Your task to perform on an android device: What's the weather going to be tomorrow? Image 0: 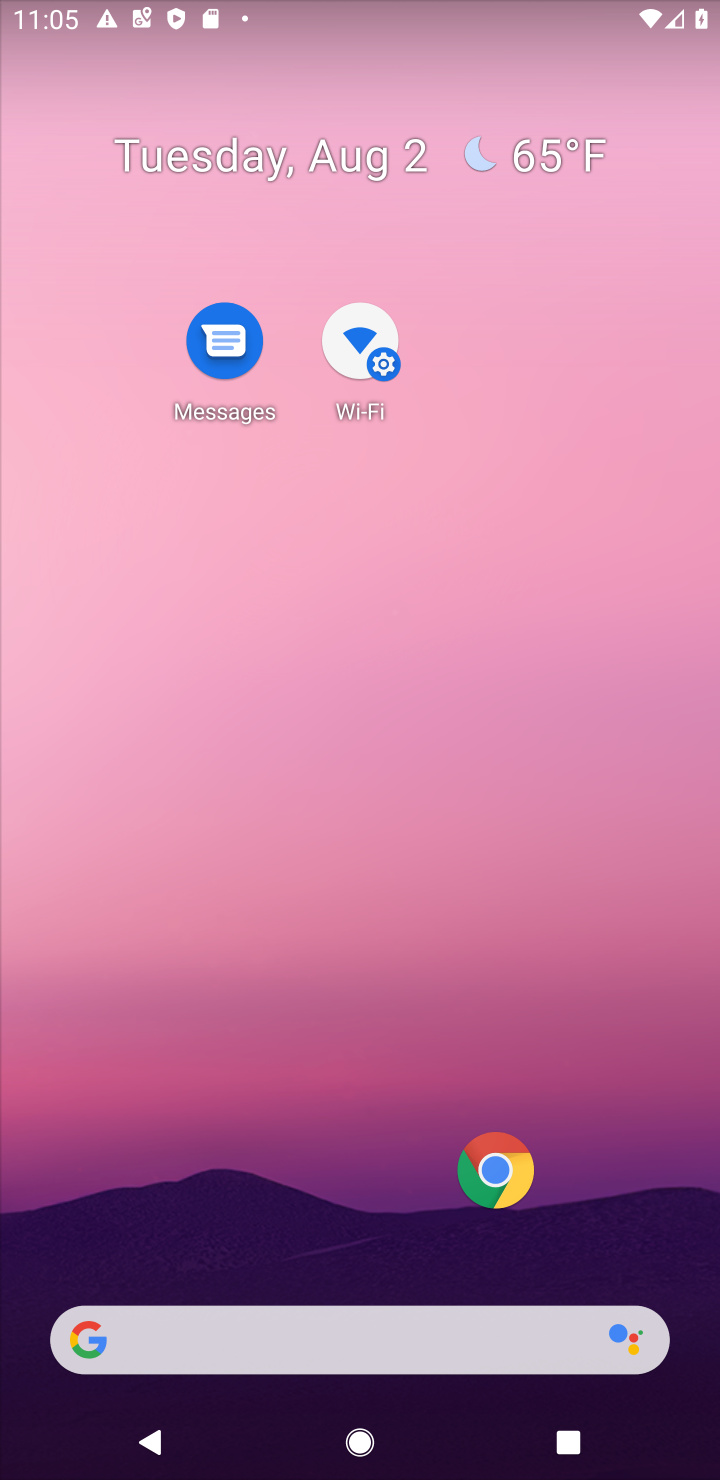
Step 0: drag from (355, 1078) to (391, 132)
Your task to perform on an android device: What's the weather going to be tomorrow? Image 1: 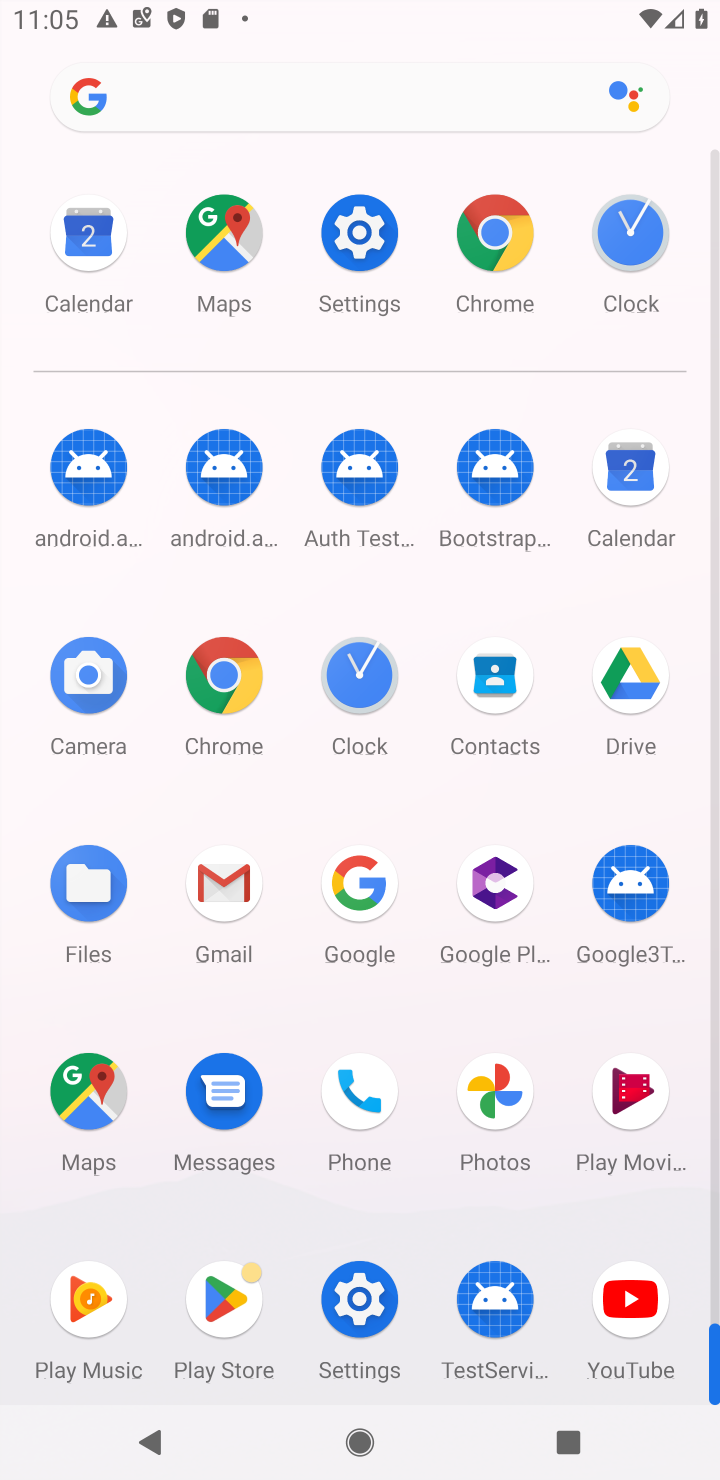
Step 1: click (612, 476)
Your task to perform on an android device: What's the weather going to be tomorrow? Image 2: 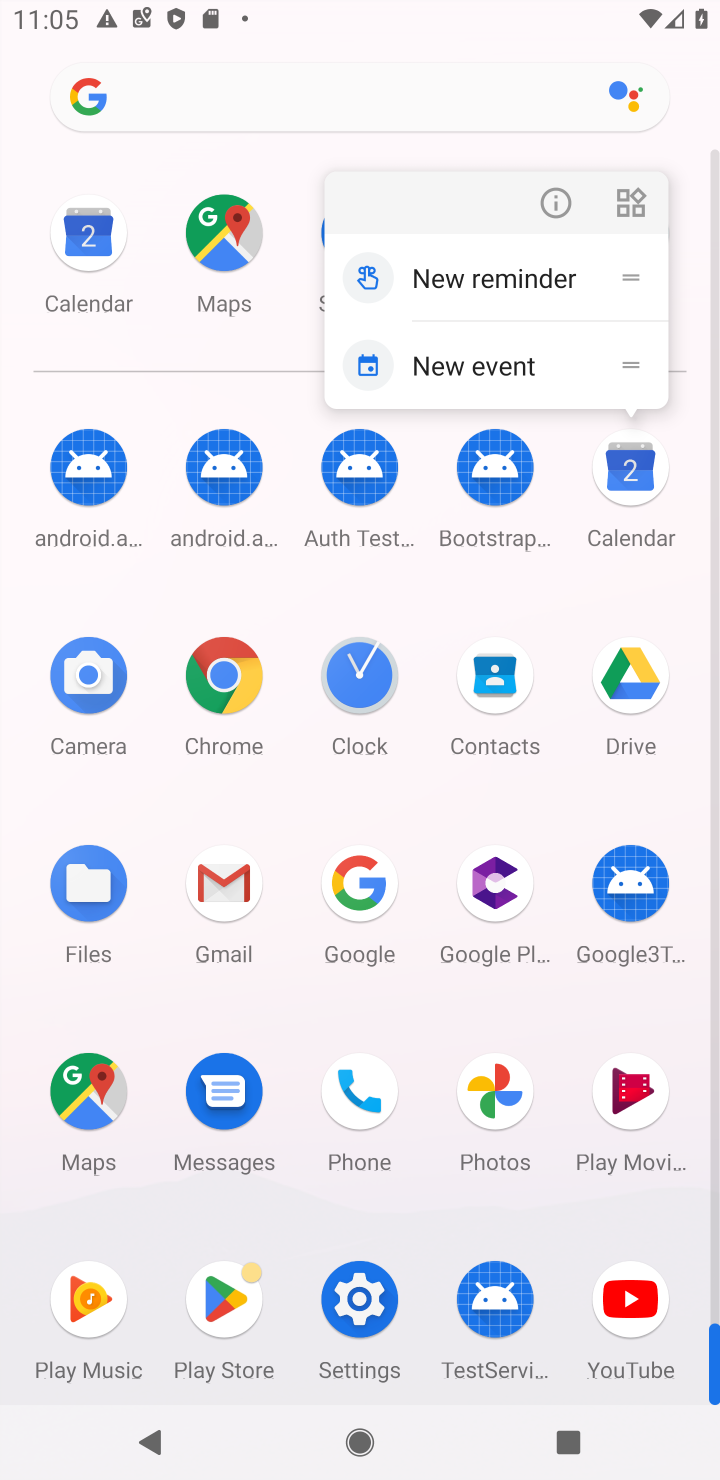
Step 2: click (551, 205)
Your task to perform on an android device: What's the weather going to be tomorrow? Image 3: 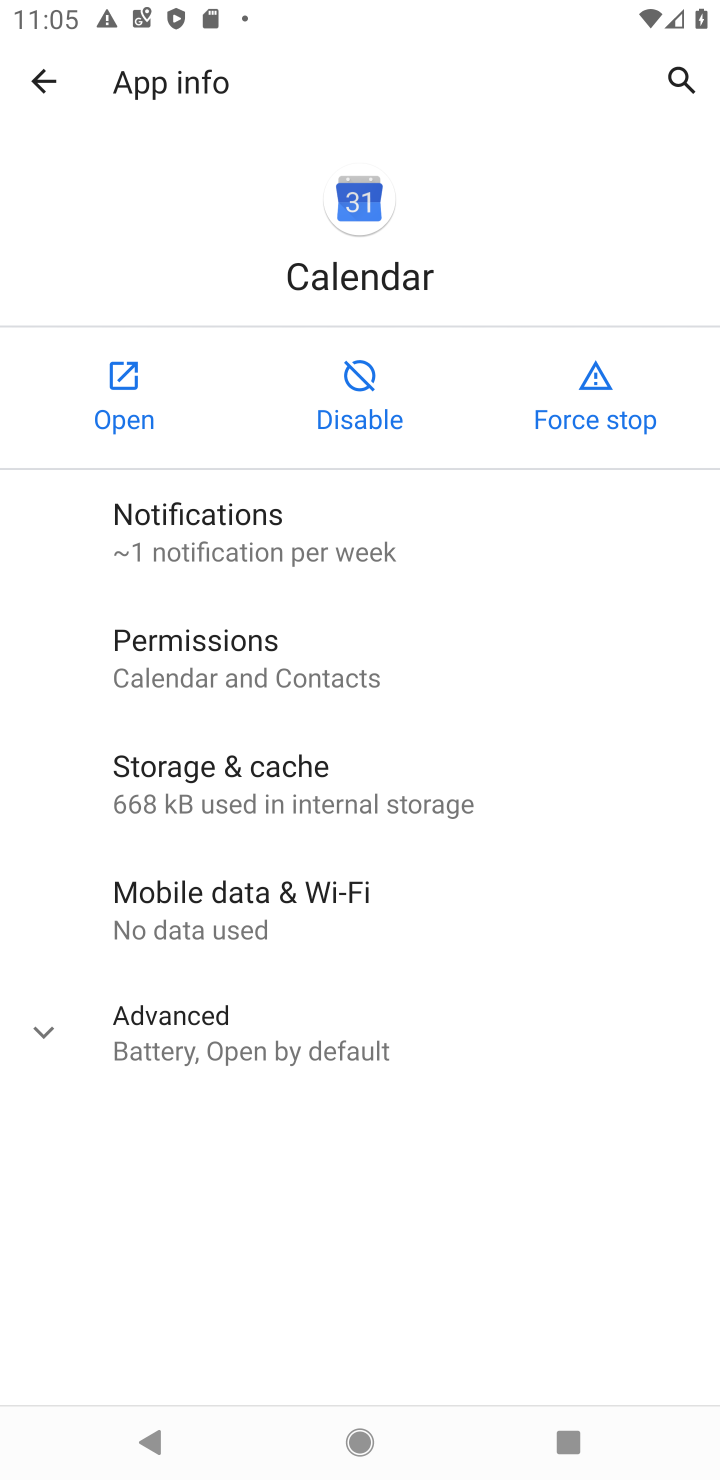
Step 3: click (126, 399)
Your task to perform on an android device: What's the weather going to be tomorrow? Image 4: 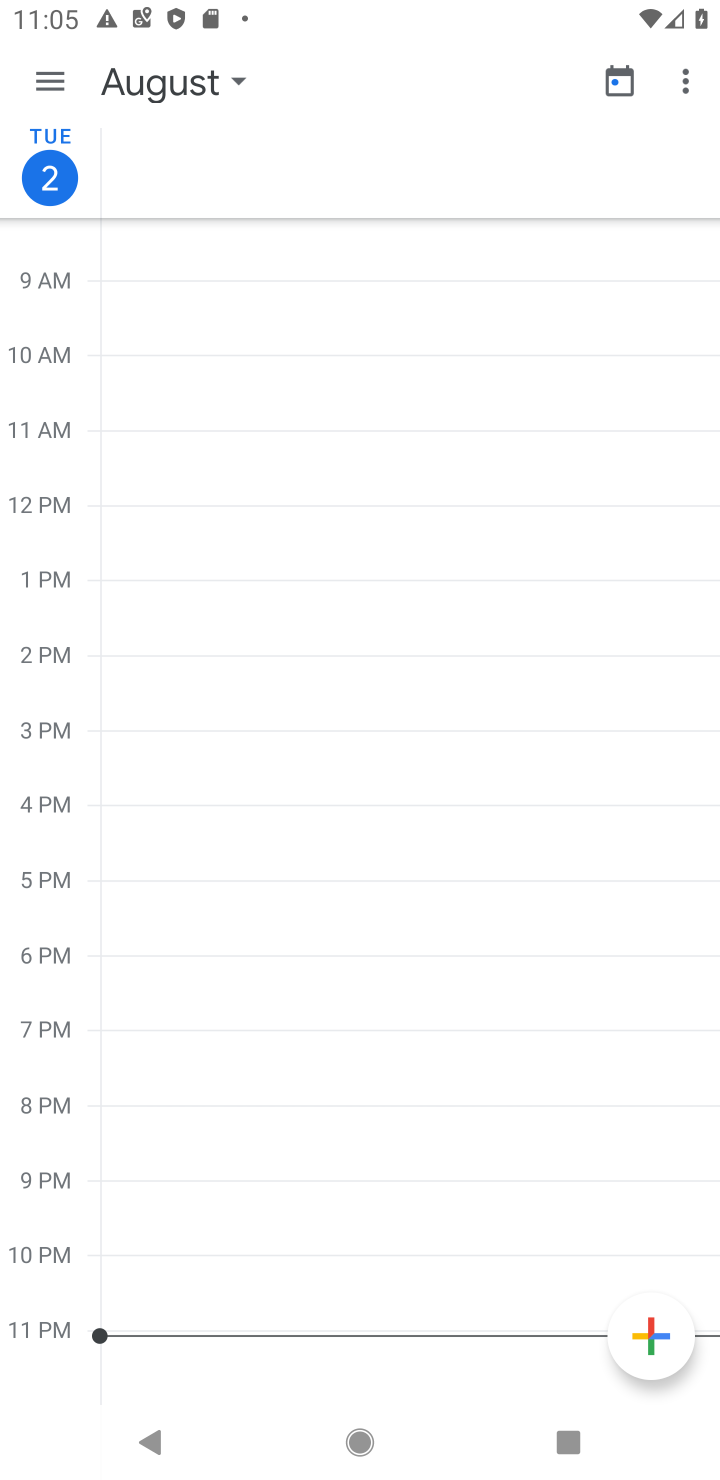
Step 4: drag from (470, 1054) to (520, 553)
Your task to perform on an android device: What's the weather going to be tomorrow? Image 5: 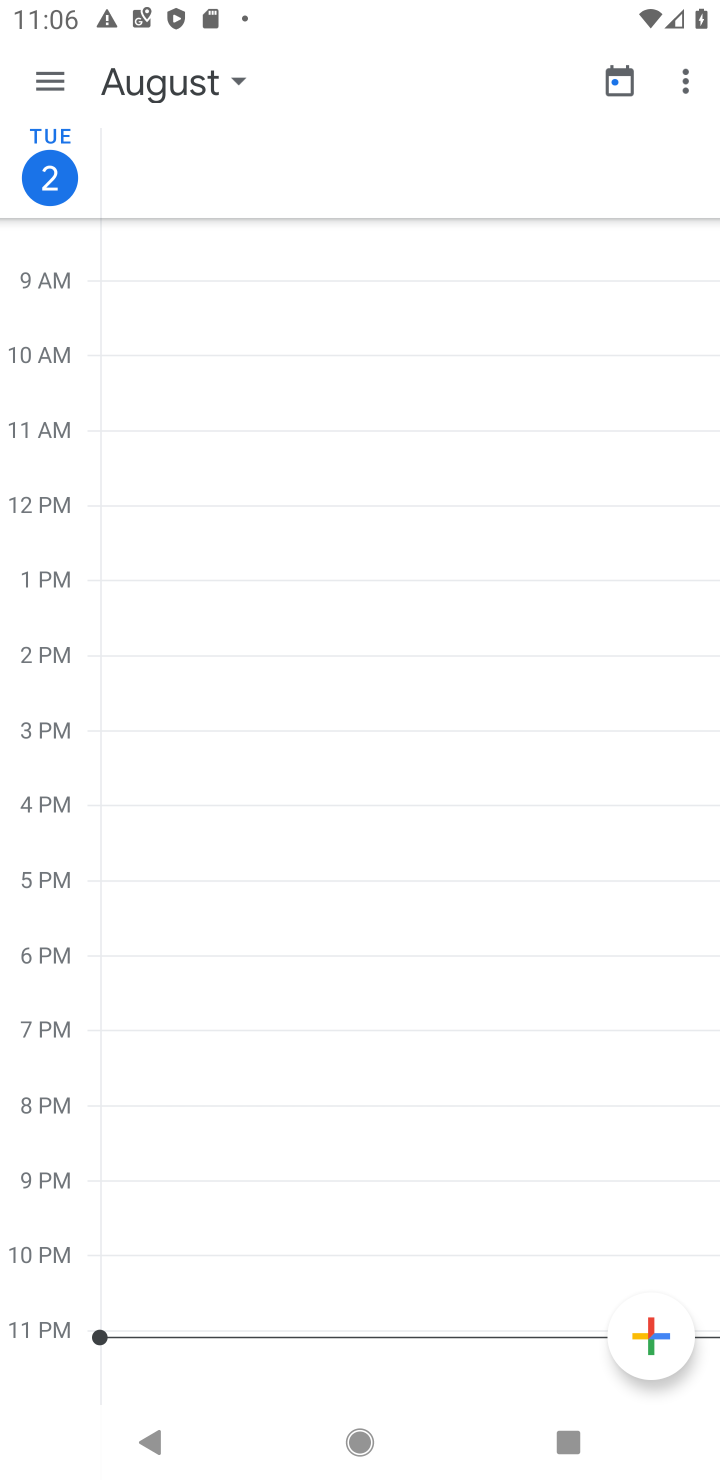
Step 5: press home button
Your task to perform on an android device: What's the weather going to be tomorrow? Image 6: 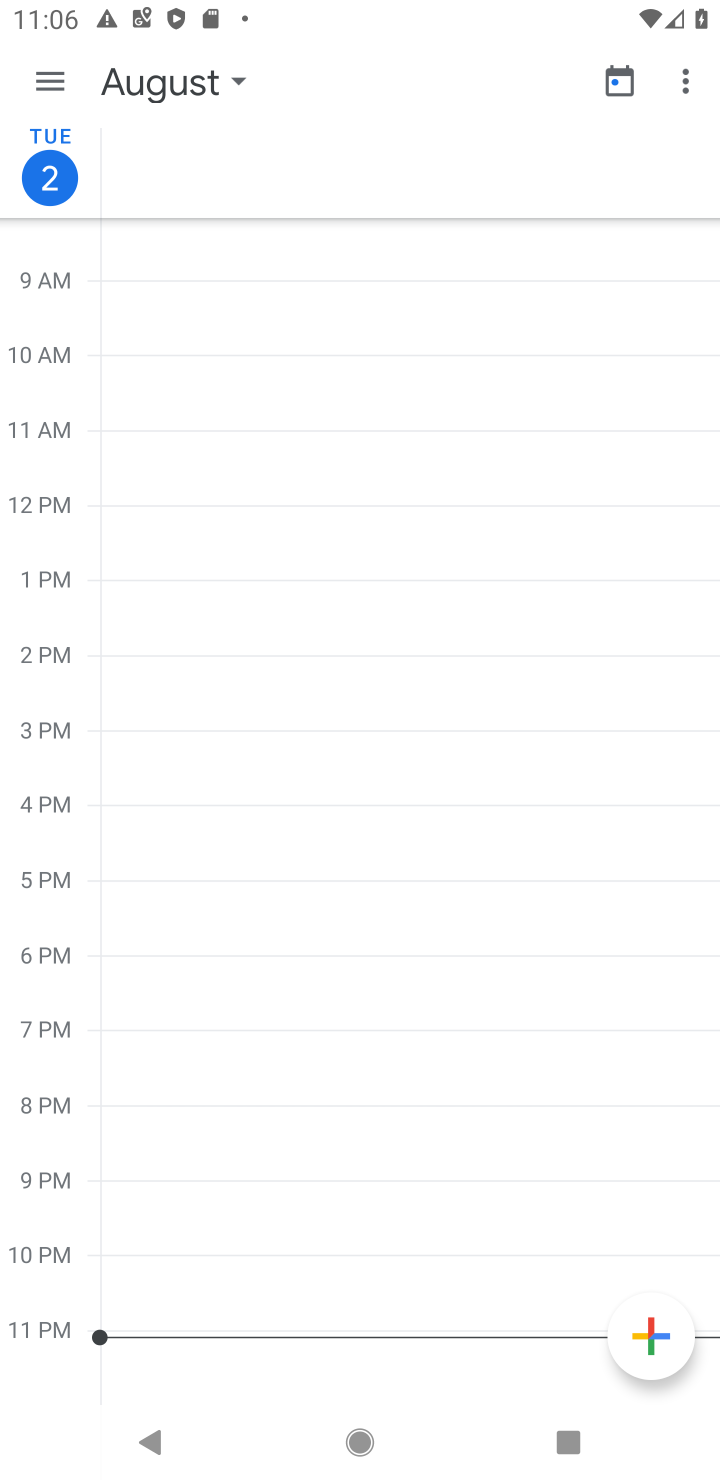
Step 6: click (315, 167)
Your task to perform on an android device: What's the weather going to be tomorrow? Image 7: 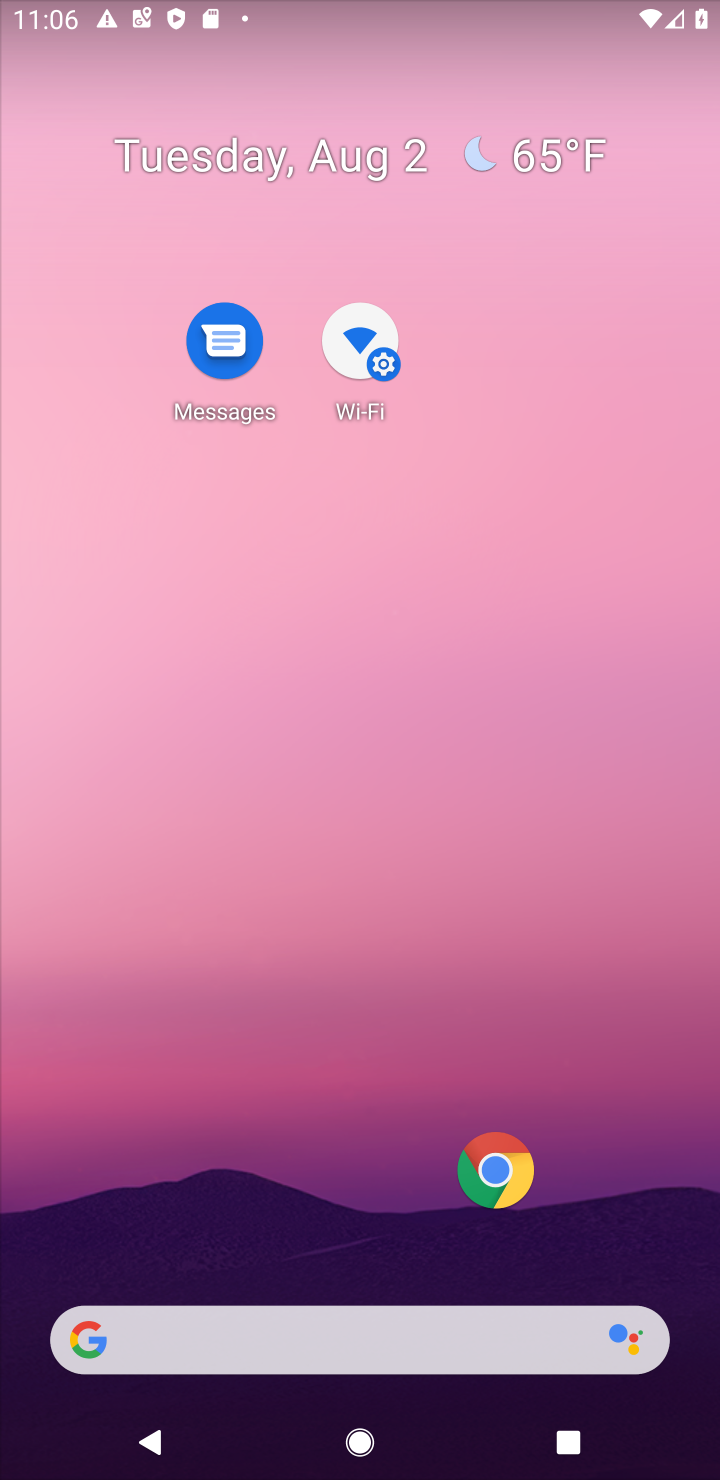
Step 7: click (395, 732)
Your task to perform on an android device: What's the weather going to be tomorrow? Image 8: 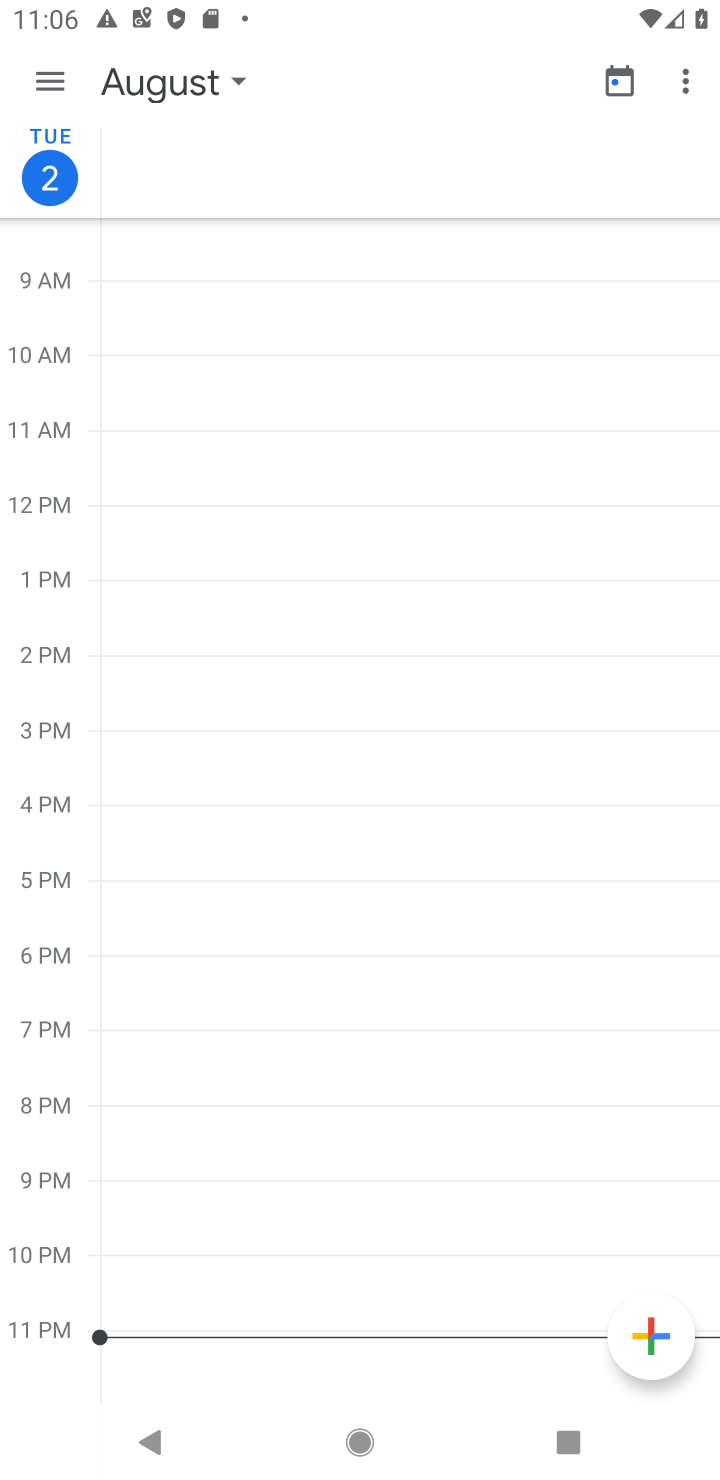
Step 8: press home button
Your task to perform on an android device: What's the weather going to be tomorrow? Image 9: 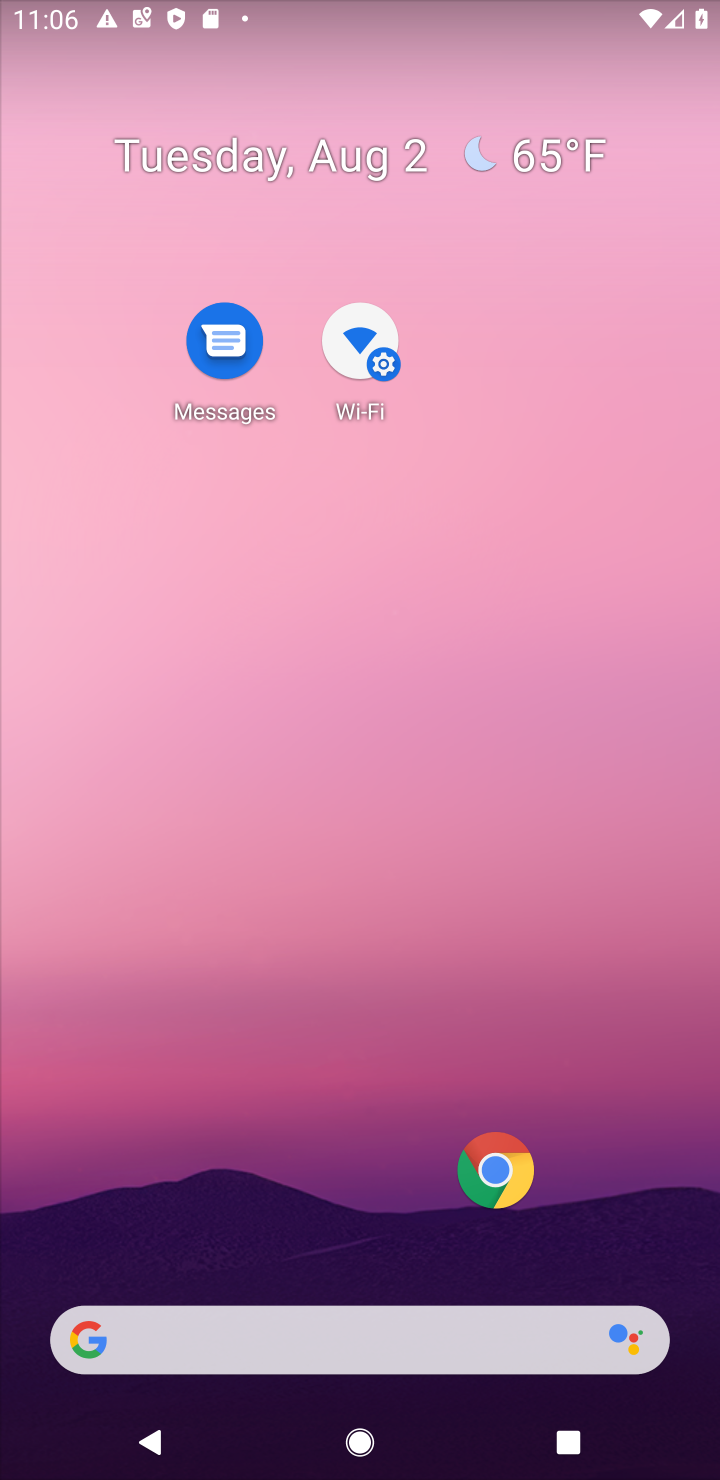
Step 9: click (287, 1331)
Your task to perform on an android device: What's the weather going to be tomorrow? Image 10: 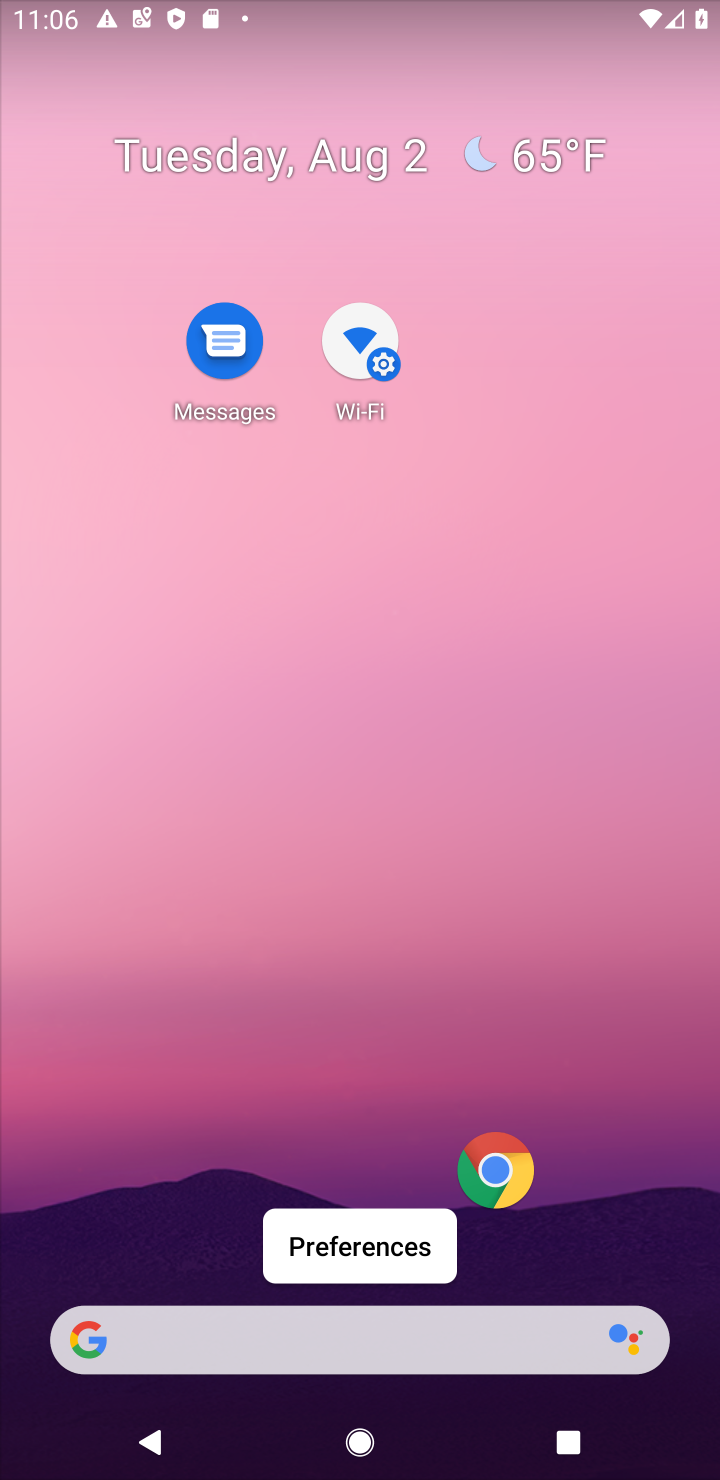
Step 10: click (306, 1319)
Your task to perform on an android device: What's the weather going to be tomorrow? Image 11: 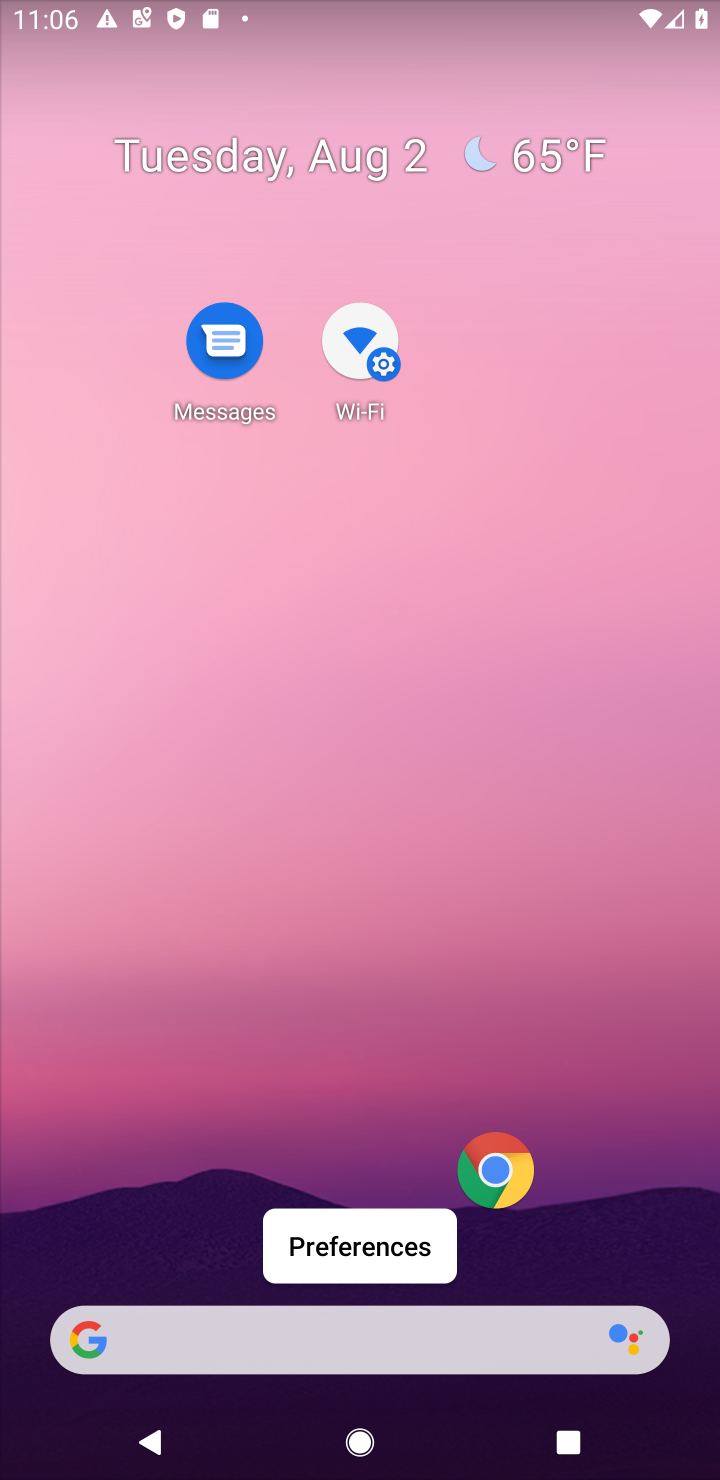
Step 11: click (194, 1253)
Your task to perform on an android device: What's the weather going to be tomorrow? Image 12: 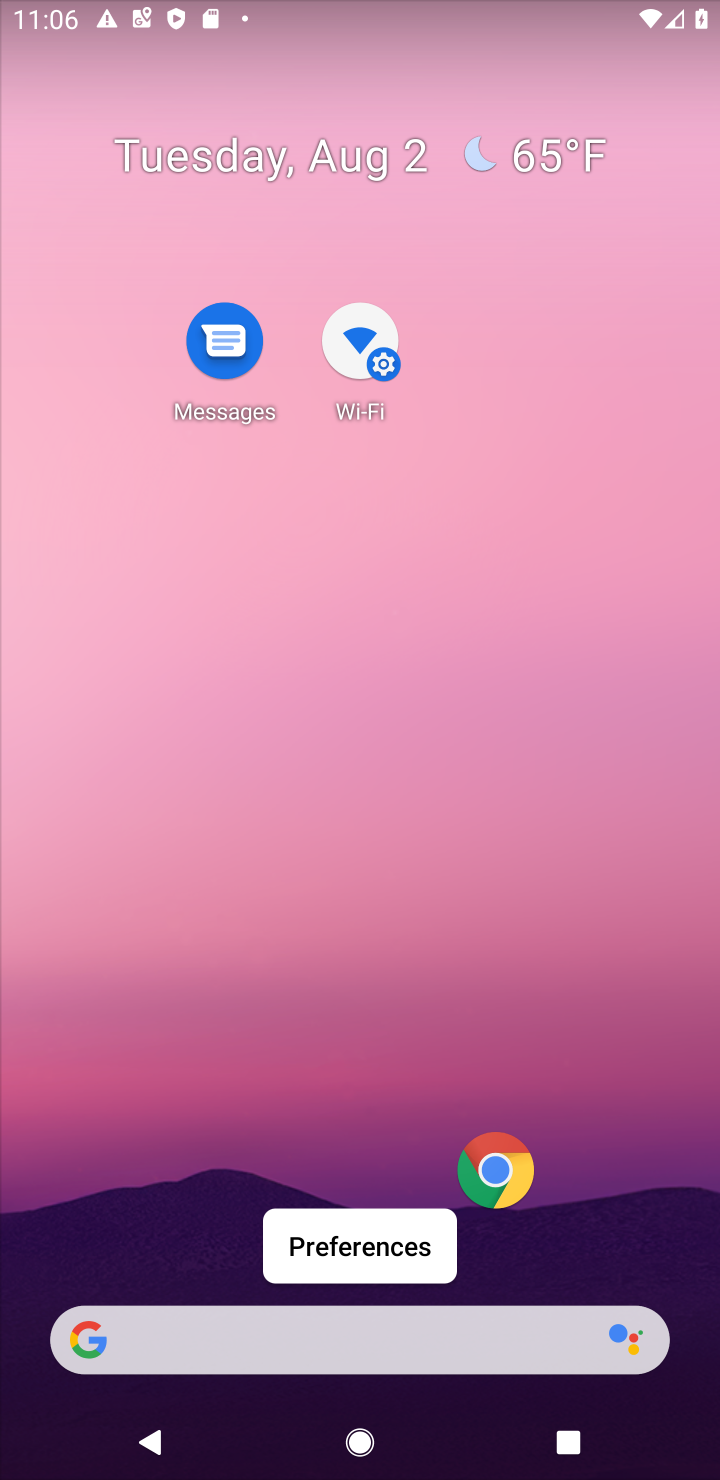
Step 12: drag from (226, 1266) to (288, 377)
Your task to perform on an android device: What's the weather going to be tomorrow? Image 13: 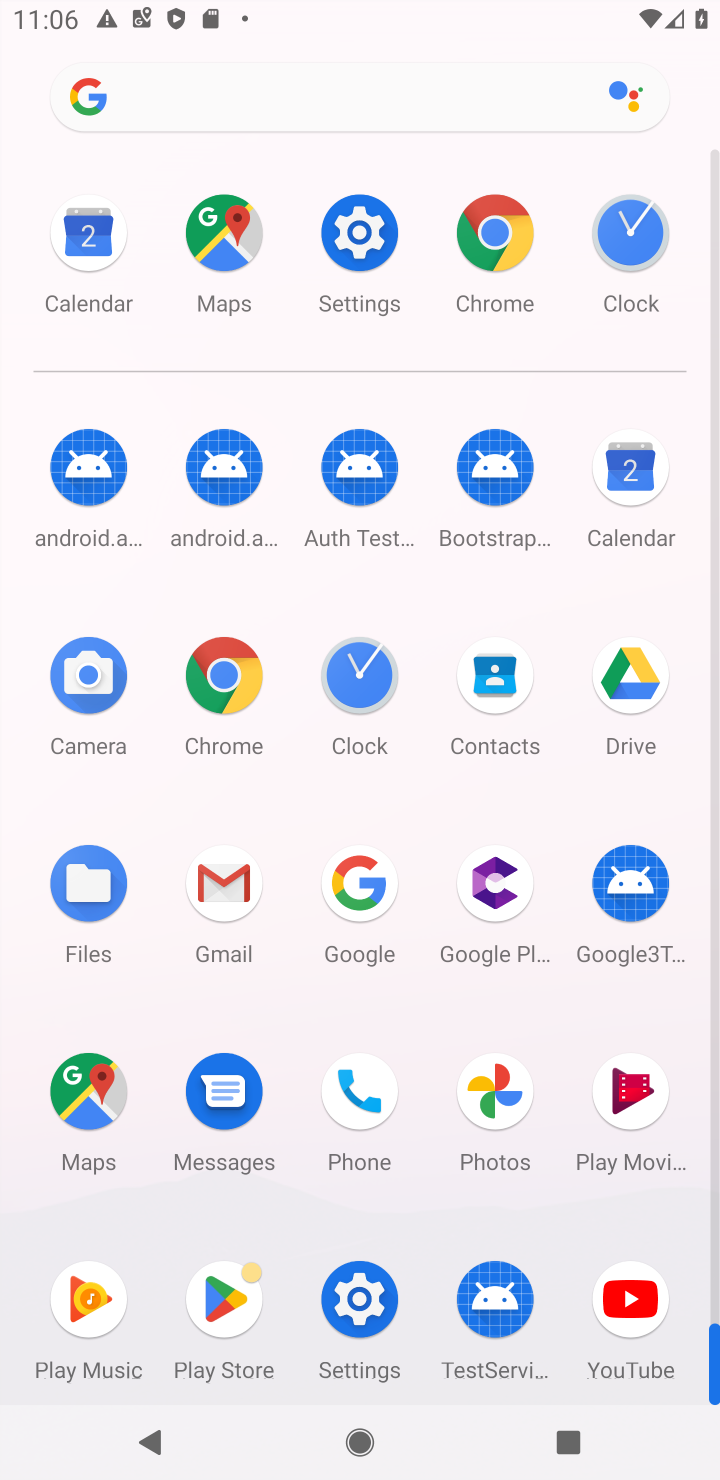
Step 13: click (311, 88)
Your task to perform on an android device: What's the weather going to be tomorrow? Image 14: 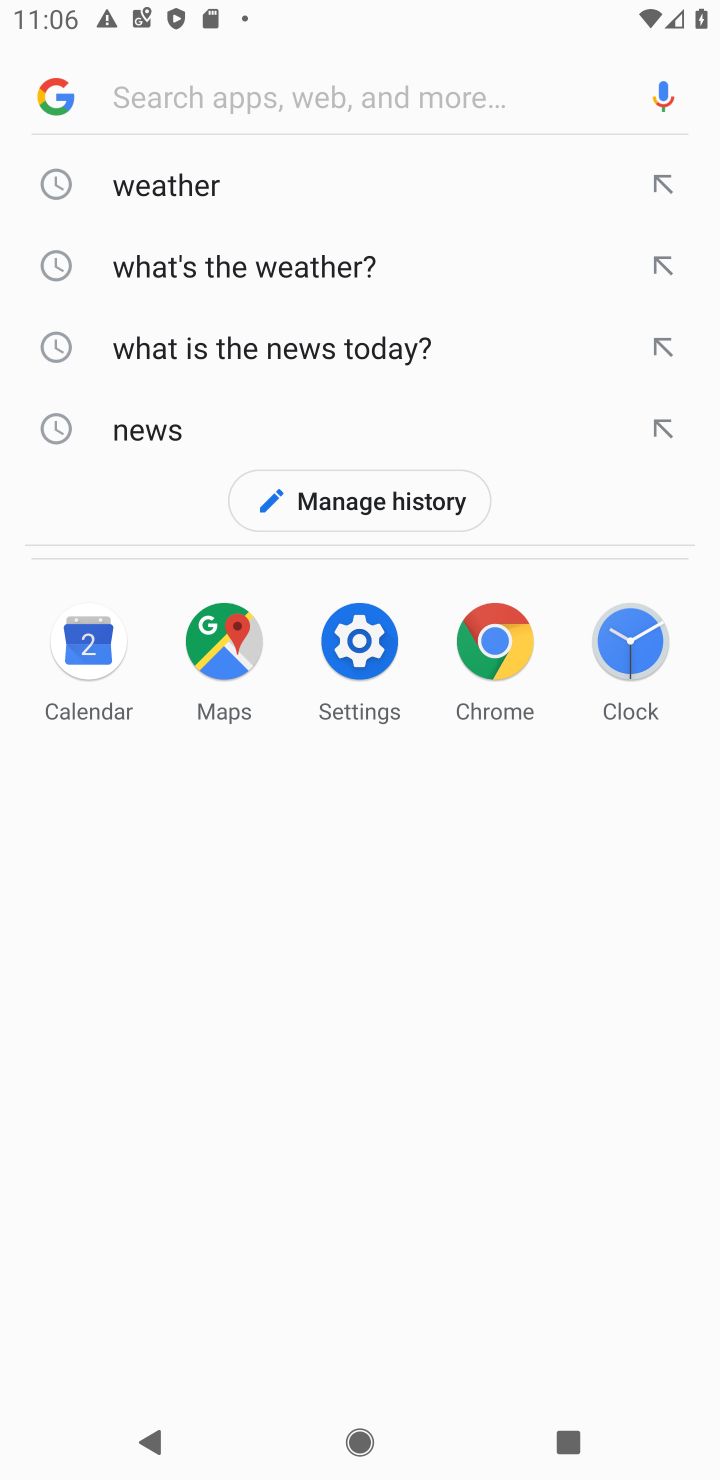
Step 14: type "What's the weather going to be tomorrow?"
Your task to perform on an android device: What's the weather going to be tomorrow? Image 15: 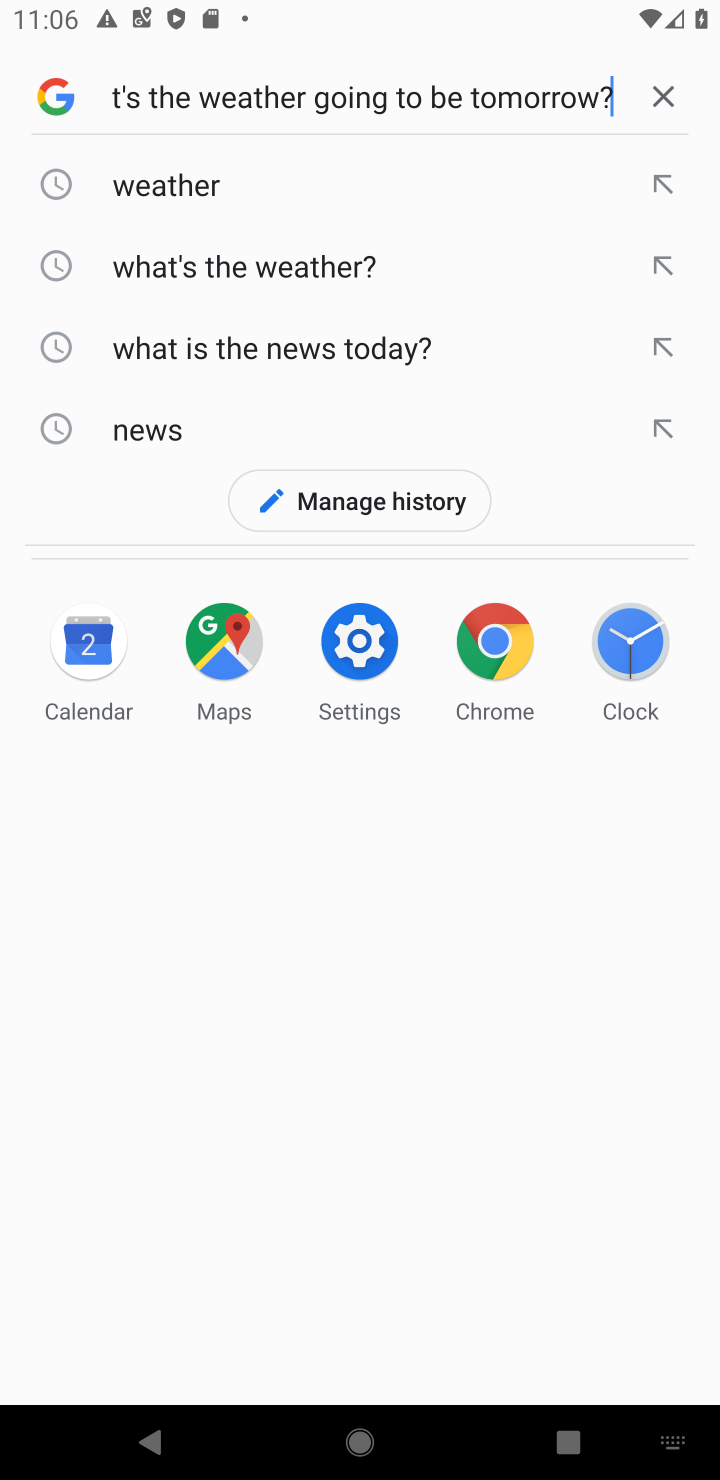
Step 15: type ""
Your task to perform on an android device: What's the weather going to be tomorrow? Image 16: 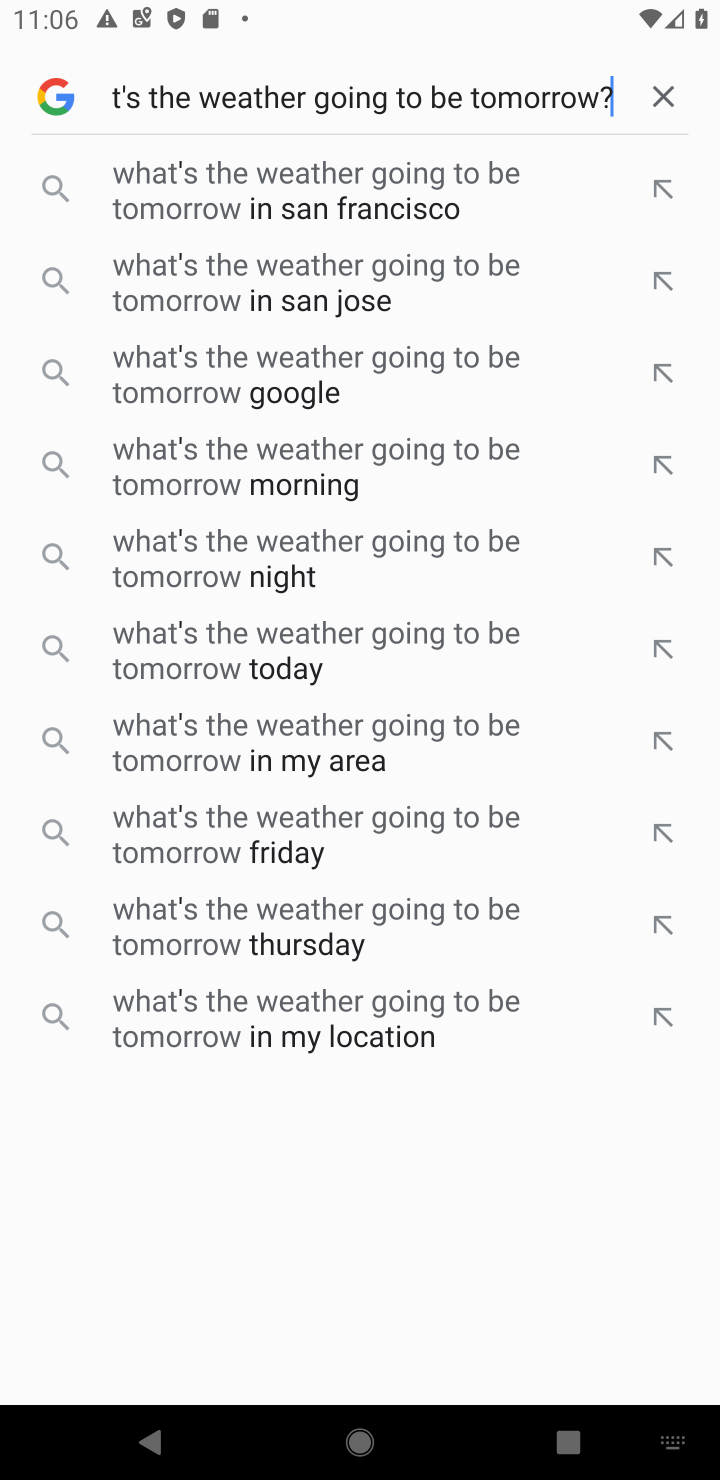
Step 16: click (233, 177)
Your task to perform on an android device: What's the weather going to be tomorrow? Image 17: 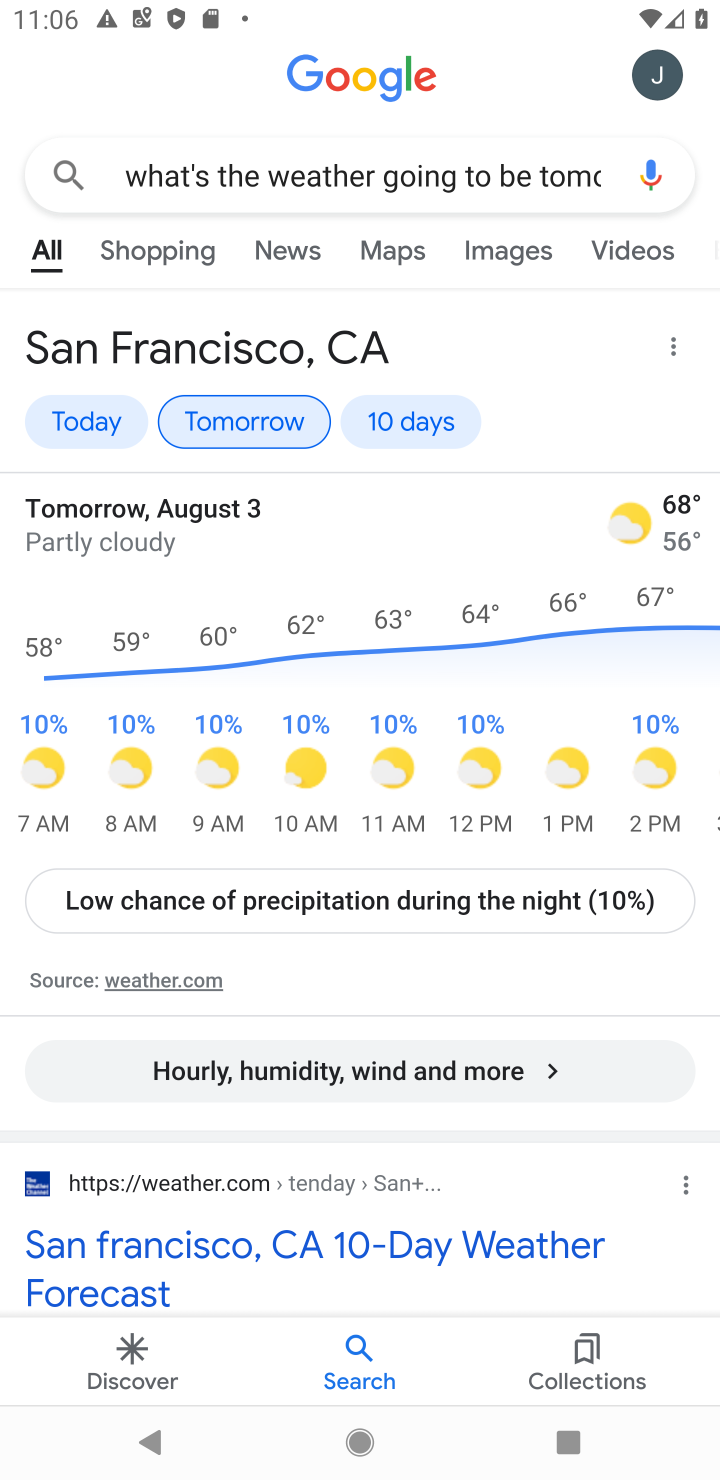
Step 17: task complete